Your task to perform on an android device: turn off notifications in google photos Image 0: 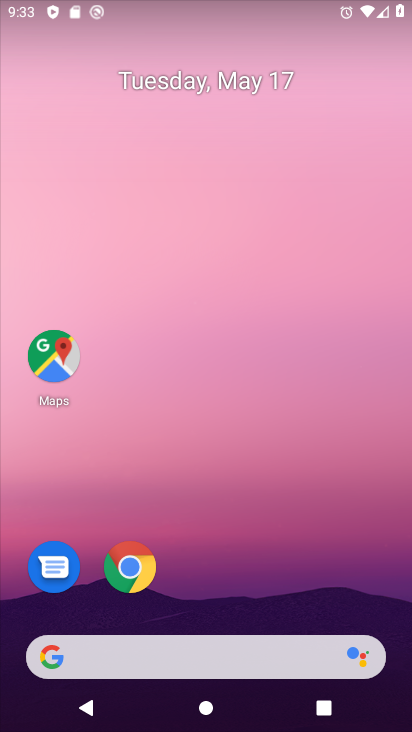
Step 0: drag from (273, 578) to (171, 77)
Your task to perform on an android device: turn off notifications in google photos Image 1: 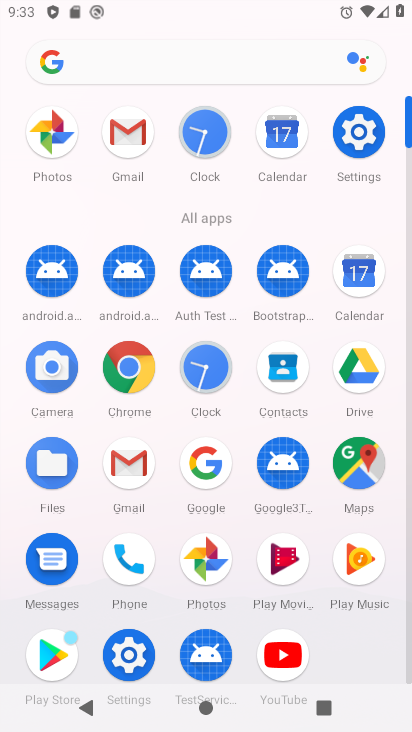
Step 1: click (205, 555)
Your task to perform on an android device: turn off notifications in google photos Image 2: 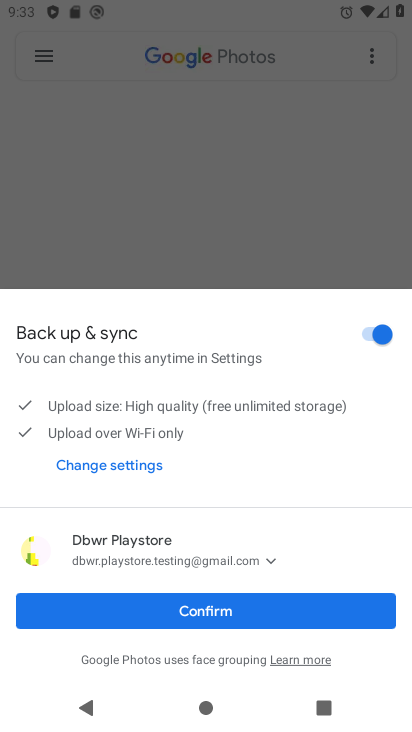
Step 2: click (214, 621)
Your task to perform on an android device: turn off notifications in google photos Image 3: 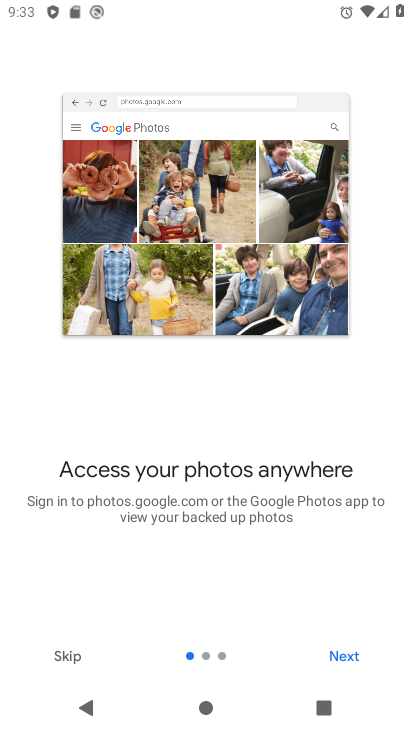
Step 3: click (342, 660)
Your task to perform on an android device: turn off notifications in google photos Image 4: 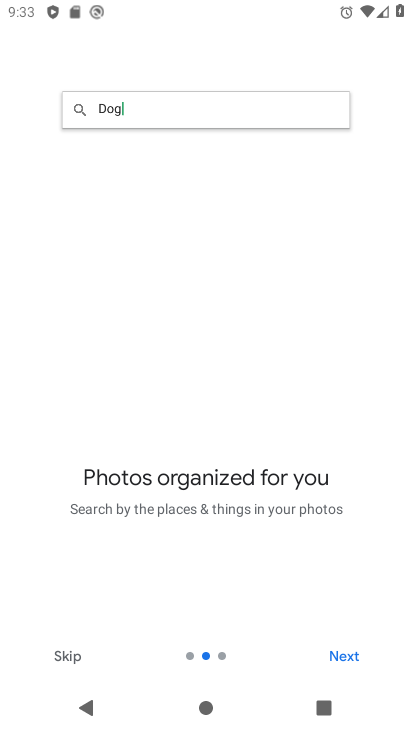
Step 4: click (342, 660)
Your task to perform on an android device: turn off notifications in google photos Image 5: 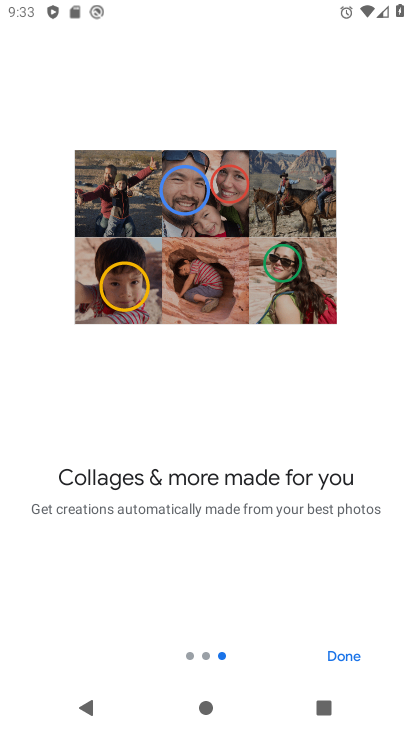
Step 5: click (342, 660)
Your task to perform on an android device: turn off notifications in google photos Image 6: 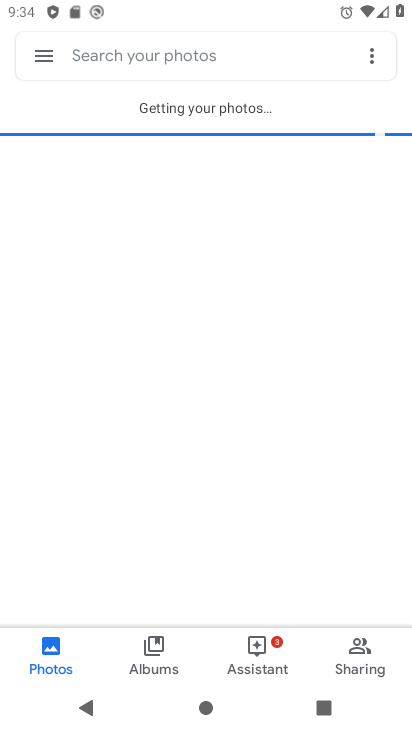
Step 6: click (40, 62)
Your task to perform on an android device: turn off notifications in google photos Image 7: 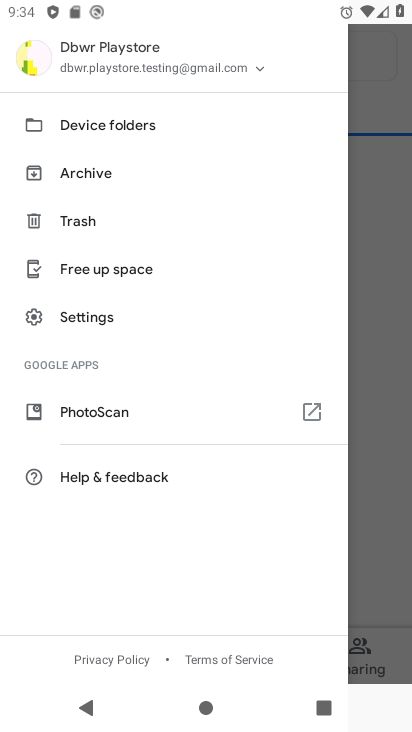
Step 7: click (111, 327)
Your task to perform on an android device: turn off notifications in google photos Image 8: 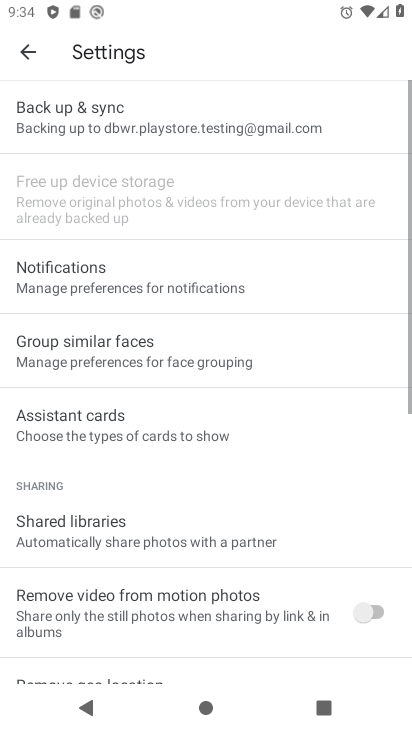
Step 8: click (88, 285)
Your task to perform on an android device: turn off notifications in google photos Image 9: 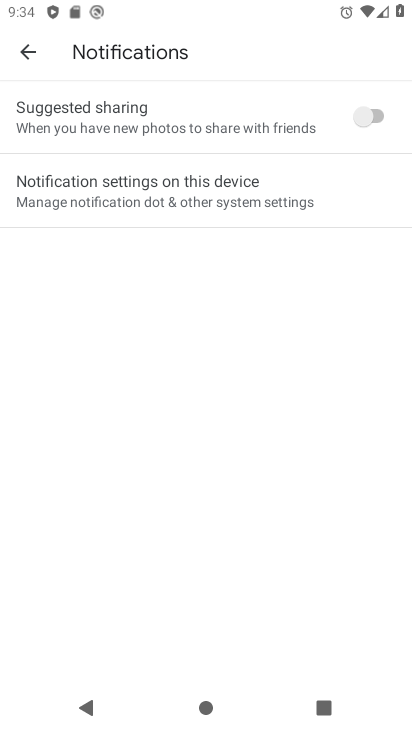
Step 9: click (91, 195)
Your task to perform on an android device: turn off notifications in google photos Image 10: 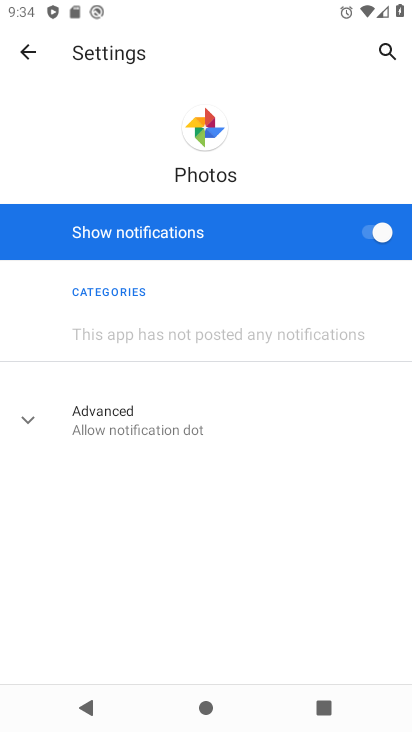
Step 10: click (364, 235)
Your task to perform on an android device: turn off notifications in google photos Image 11: 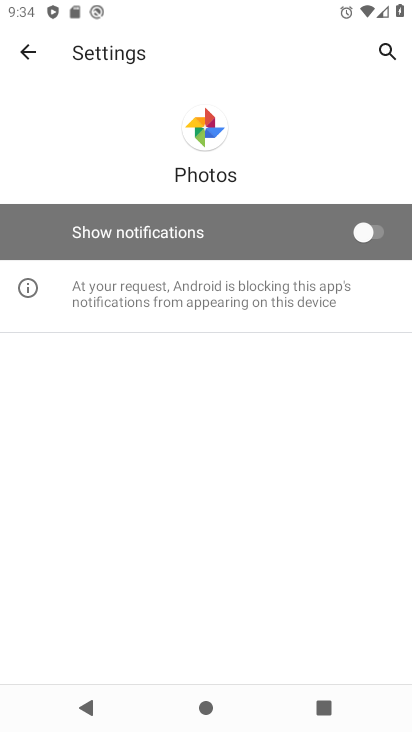
Step 11: task complete